Your task to perform on an android device: open a new tab in the chrome app Image 0: 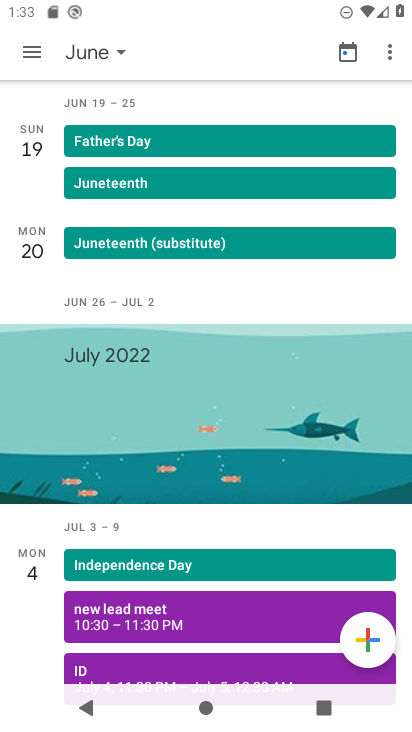
Step 0: press home button
Your task to perform on an android device: open a new tab in the chrome app Image 1: 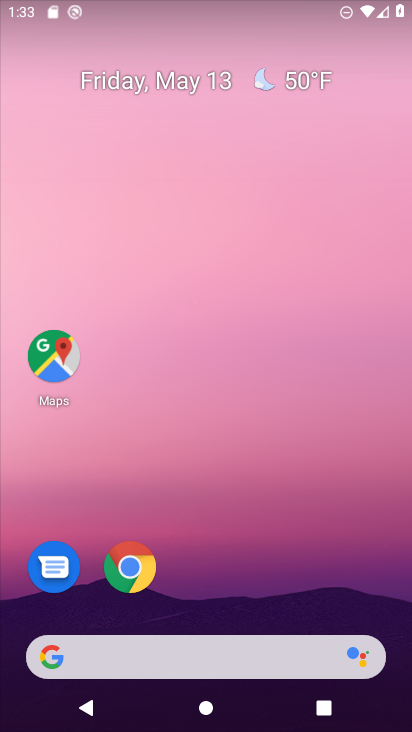
Step 1: click (114, 570)
Your task to perform on an android device: open a new tab in the chrome app Image 2: 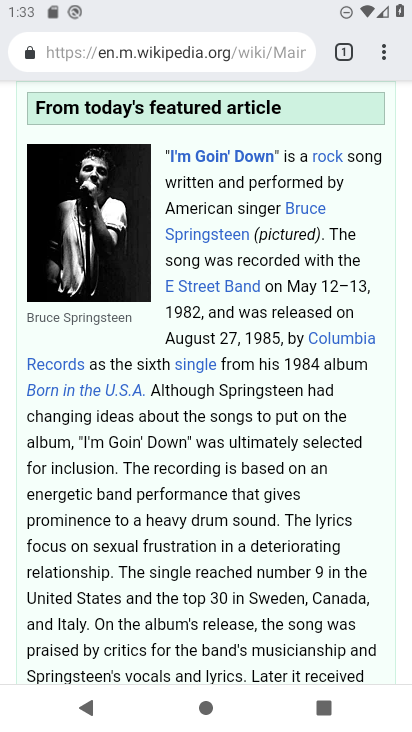
Step 2: click (384, 44)
Your task to perform on an android device: open a new tab in the chrome app Image 3: 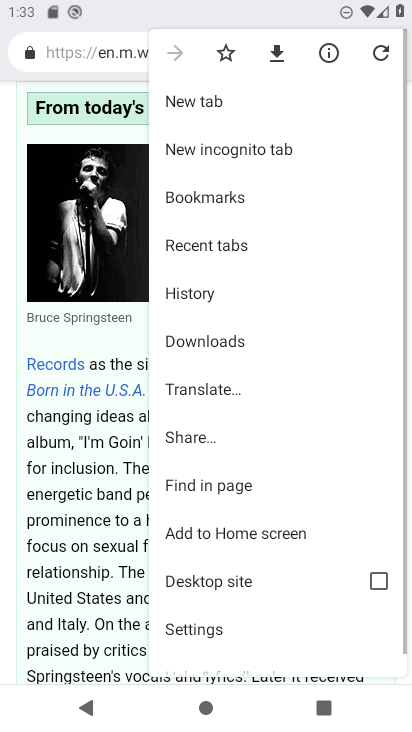
Step 3: click (236, 93)
Your task to perform on an android device: open a new tab in the chrome app Image 4: 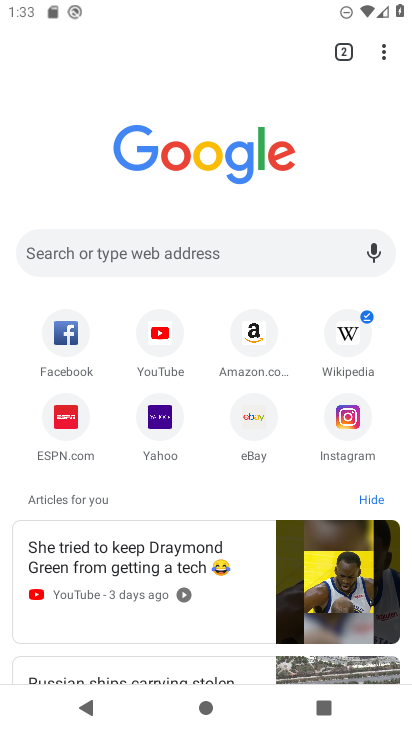
Step 4: task complete